Your task to perform on an android device: add a contact in the contacts app Image 0: 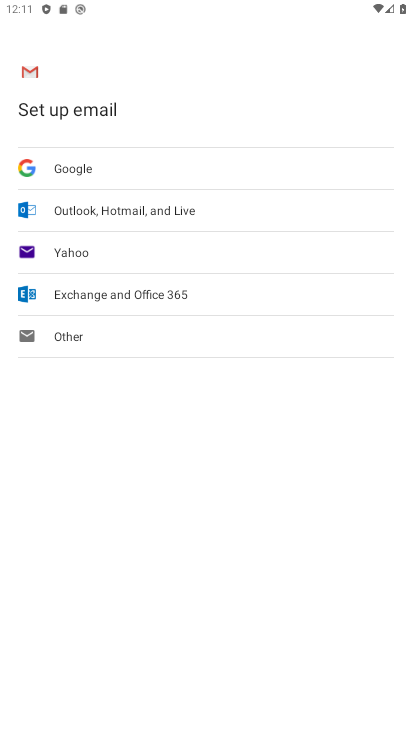
Step 0: press home button
Your task to perform on an android device: add a contact in the contacts app Image 1: 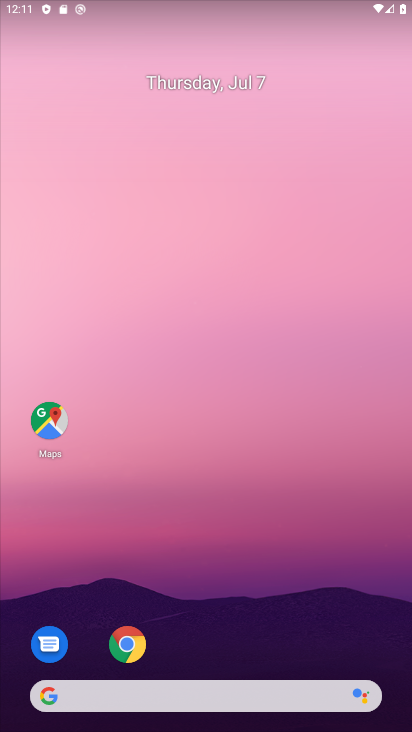
Step 1: drag from (238, 689) to (245, 285)
Your task to perform on an android device: add a contact in the contacts app Image 2: 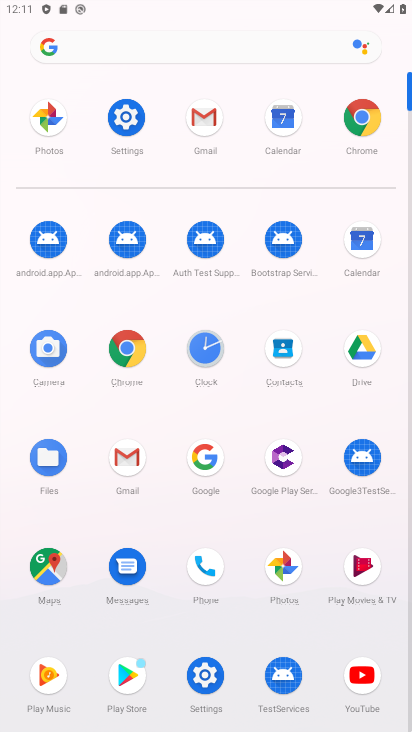
Step 2: click (281, 355)
Your task to perform on an android device: add a contact in the contacts app Image 3: 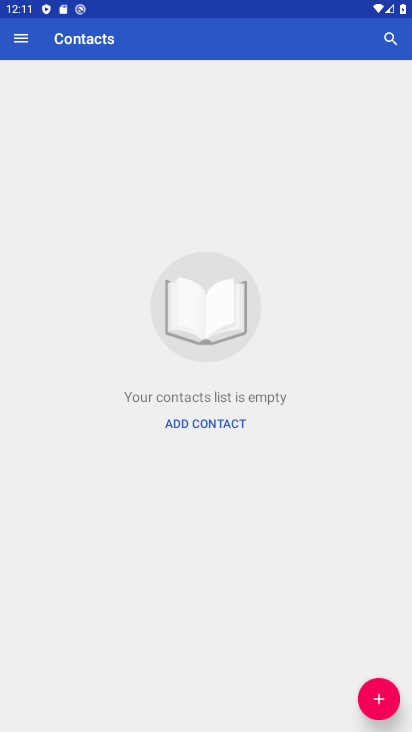
Step 3: click (372, 713)
Your task to perform on an android device: add a contact in the contacts app Image 4: 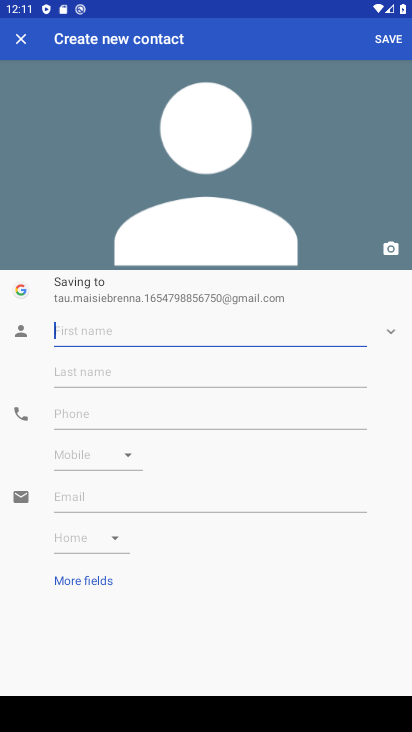
Step 4: type "matt"
Your task to perform on an android device: add a contact in the contacts app Image 5: 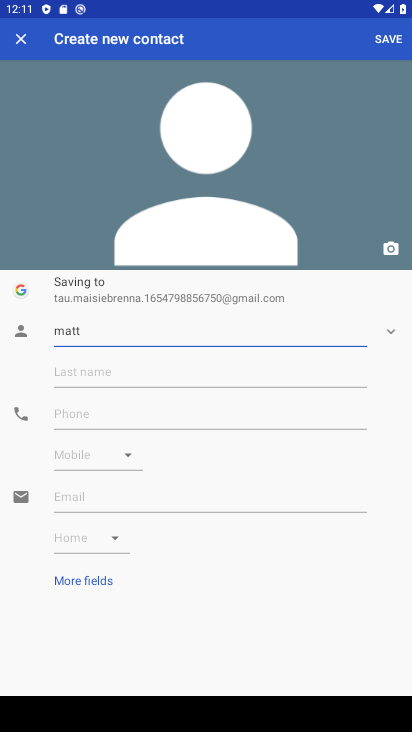
Step 5: click (323, 373)
Your task to perform on an android device: add a contact in the contacts app Image 6: 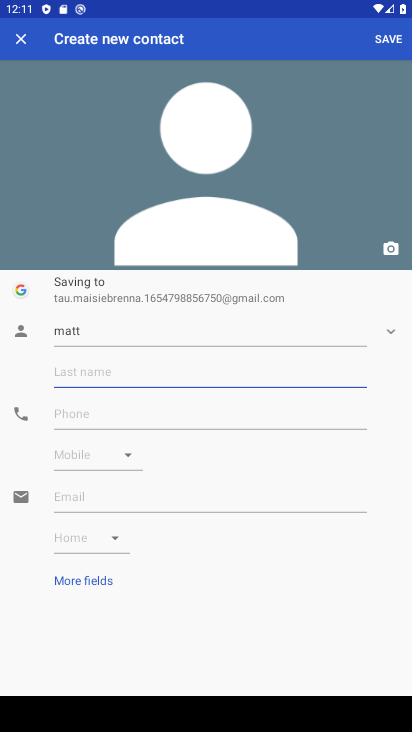
Step 6: type "murdock"
Your task to perform on an android device: add a contact in the contacts app Image 7: 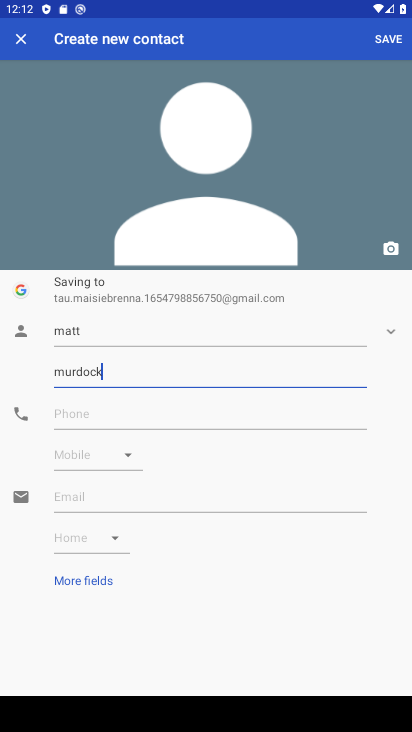
Step 7: click (166, 425)
Your task to perform on an android device: add a contact in the contacts app Image 8: 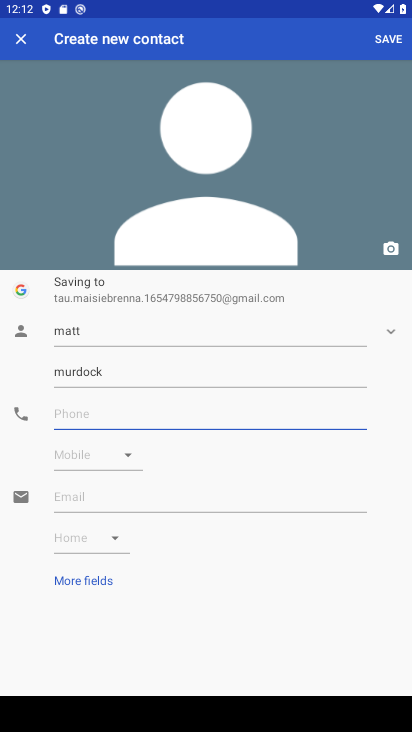
Step 8: type "93252342"
Your task to perform on an android device: add a contact in the contacts app Image 9: 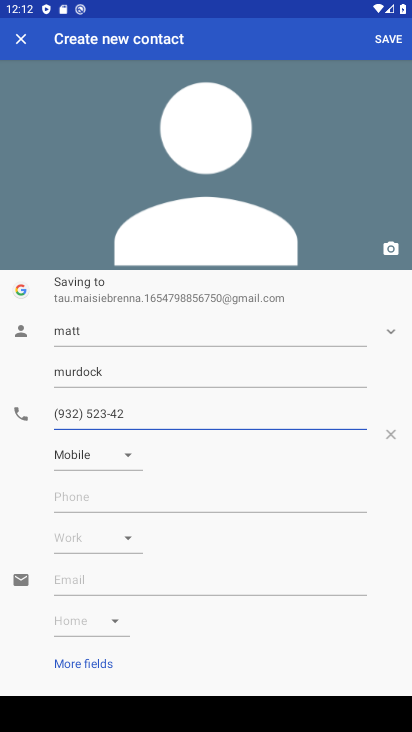
Step 9: click (386, 39)
Your task to perform on an android device: add a contact in the contacts app Image 10: 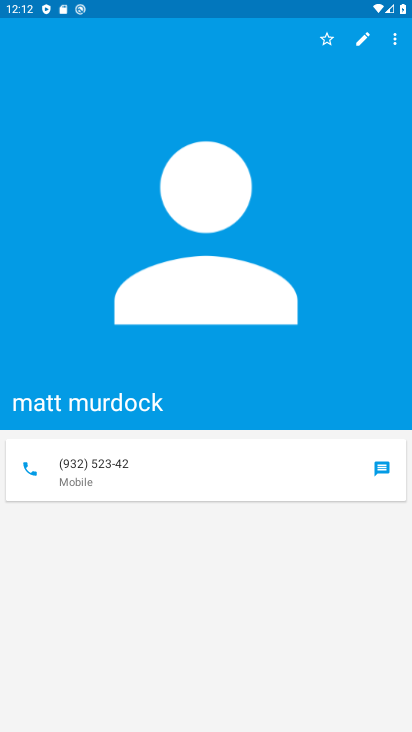
Step 10: task complete